Your task to perform on an android device: Open privacy settings Image 0: 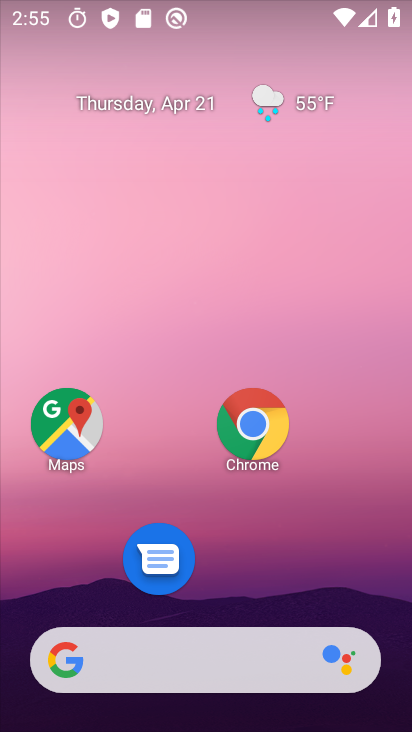
Step 0: click (245, 418)
Your task to perform on an android device: Open privacy settings Image 1: 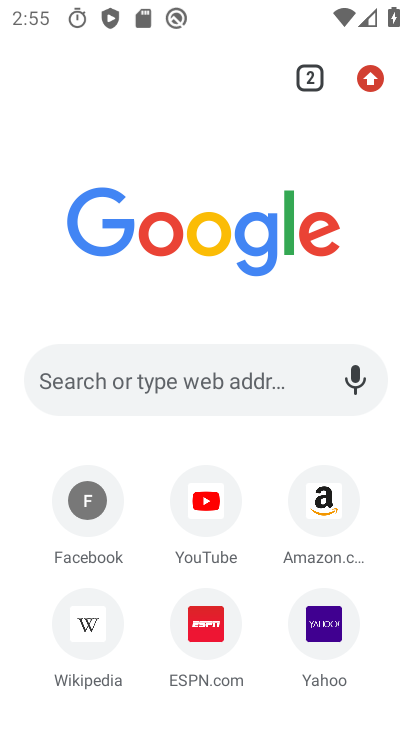
Step 1: click (374, 77)
Your task to perform on an android device: Open privacy settings Image 2: 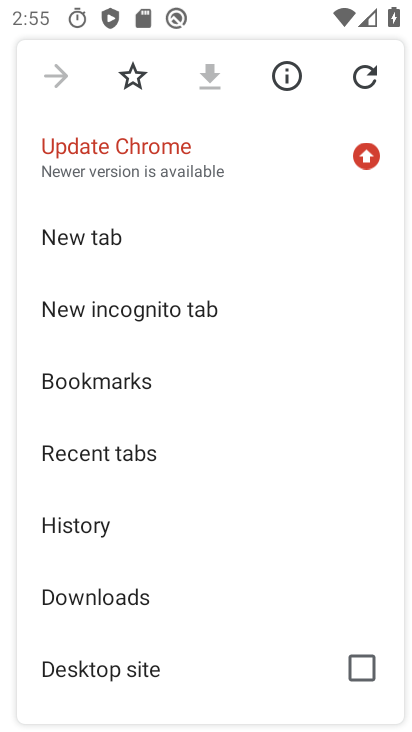
Step 2: drag from (269, 613) to (224, 137)
Your task to perform on an android device: Open privacy settings Image 3: 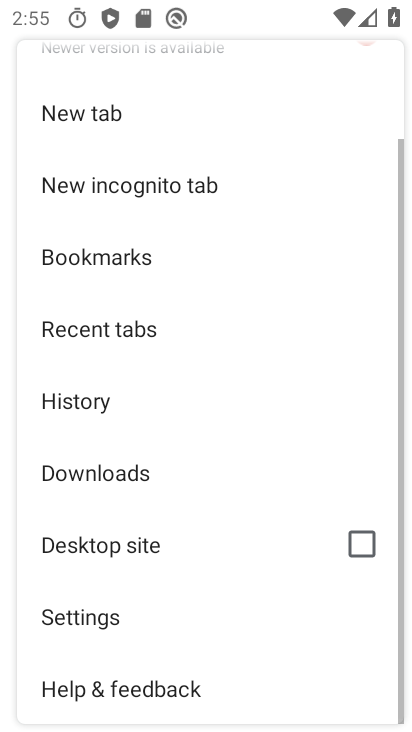
Step 3: click (116, 614)
Your task to perform on an android device: Open privacy settings Image 4: 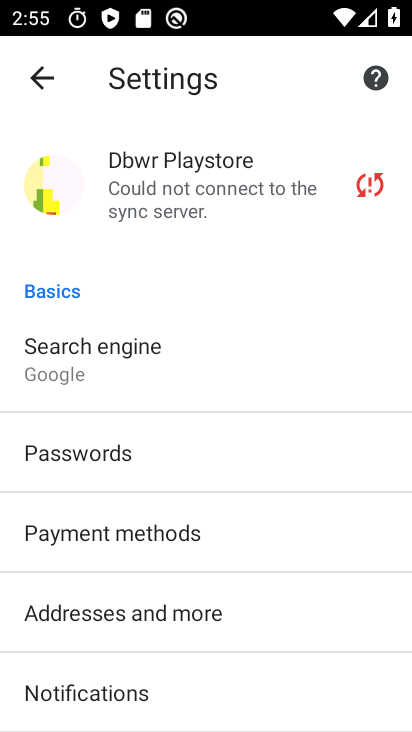
Step 4: drag from (135, 460) to (120, 49)
Your task to perform on an android device: Open privacy settings Image 5: 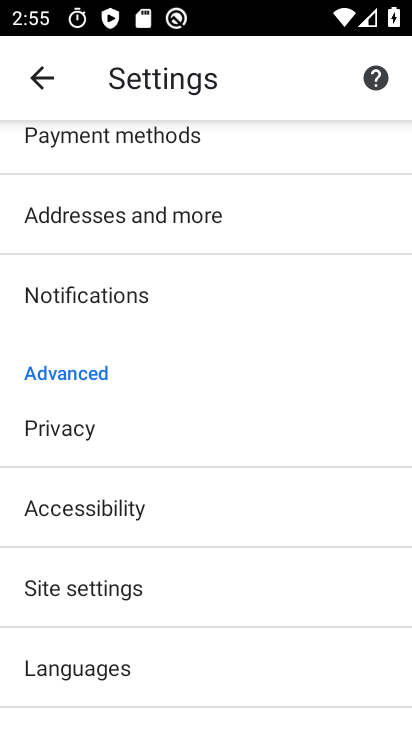
Step 5: click (82, 430)
Your task to perform on an android device: Open privacy settings Image 6: 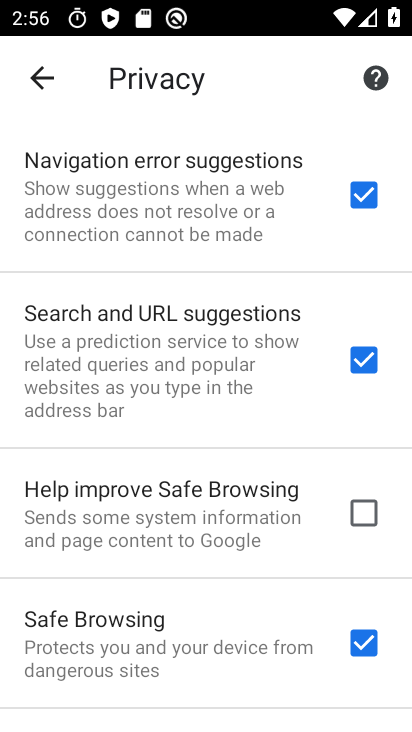
Step 6: task complete